Your task to perform on an android device: Show me productivity apps on the Play Store Image 0: 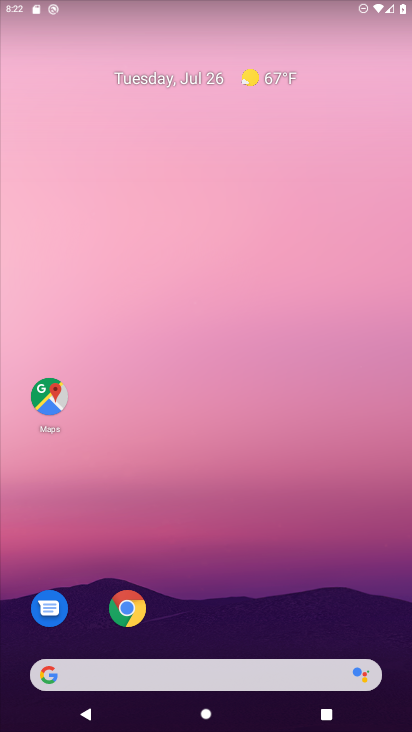
Step 0: drag from (234, 635) to (215, 2)
Your task to perform on an android device: Show me productivity apps on the Play Store Image 1: 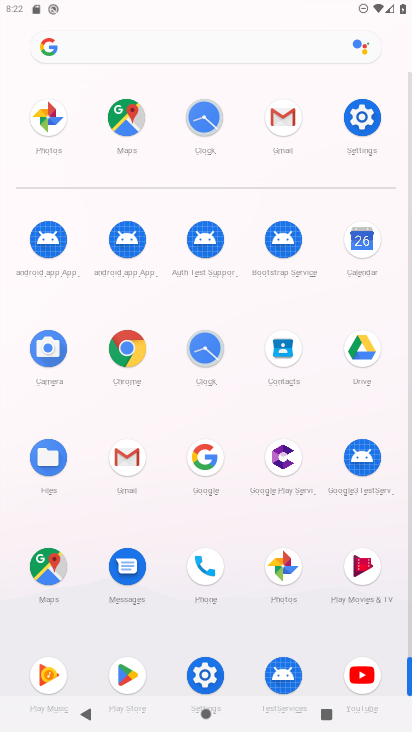
Step 1: click (111, 667)
Your task to perform on an android device: Show me productivity apps on the Play Store Image 2: 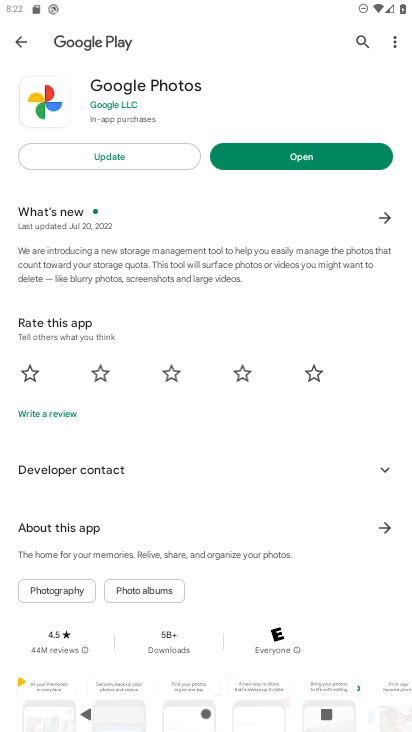
Step 2: click (23, 43)
Your task to perform on an android device: Show me productivity apps on the Play Store Image 3: 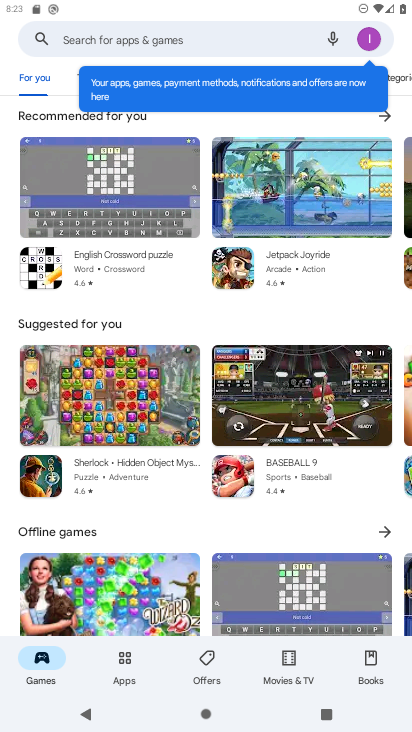
Step 3: click (117, 667)
Your task to perform on an android device: Show me productivity apps on the Play Store Image 4: 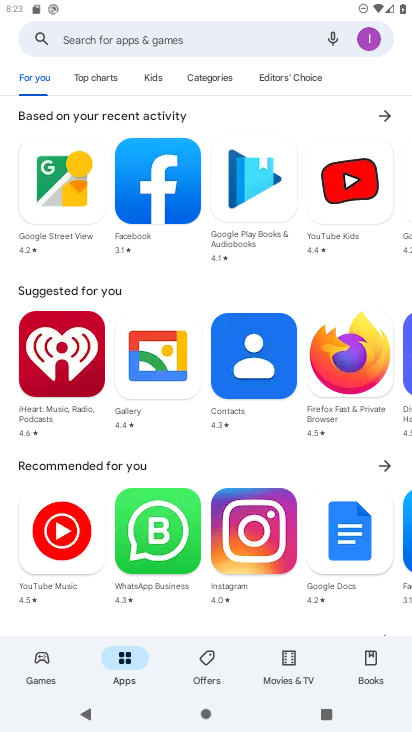
Step 4: click (223, 80)
Your task to perform on an android device: Show me productivity apps on the Play Store Image 5: 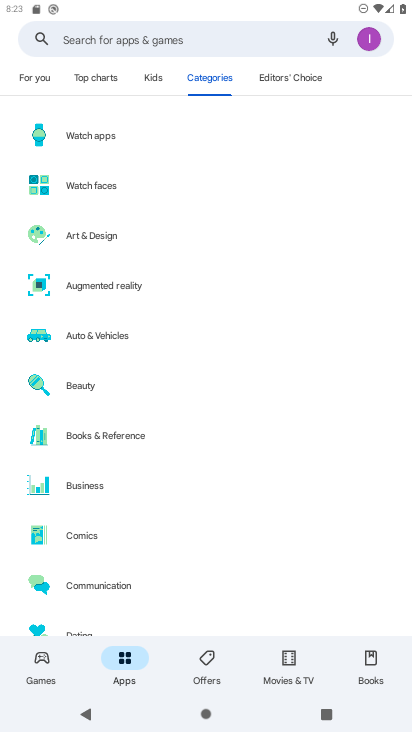
Step 5: drag from (132, 553) to (192, 119)
Your task to perform on an android device: Show me productivity apps on the Play Store Image 6: 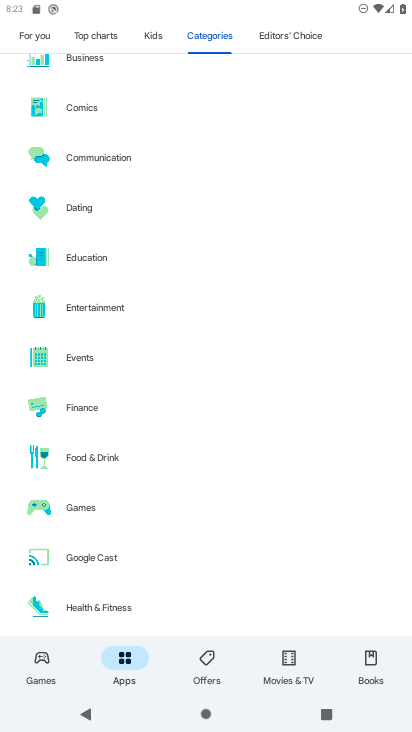
Step 6: drag from (167, 534) to (201, 50)
Your task to perform on an android device: Show me productivity apps on the Play Store Image 7: 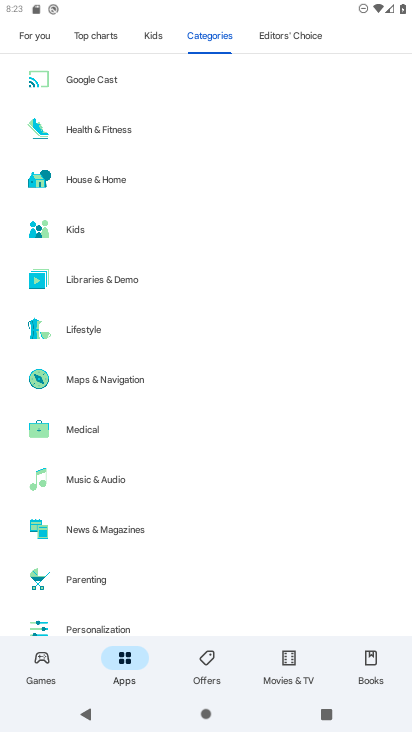
Step 7: drag from (120, 579) to (162, 216)
Your task to perform on an android device: Show me productivity apps on the Play Store Image 8: 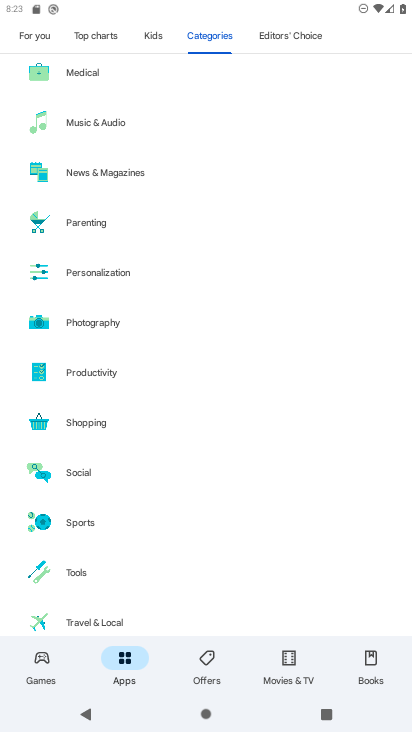
Step 8: click (124, 374)
Your task to perform on an android device: Show me productivity apps on the Play Store Image 9: 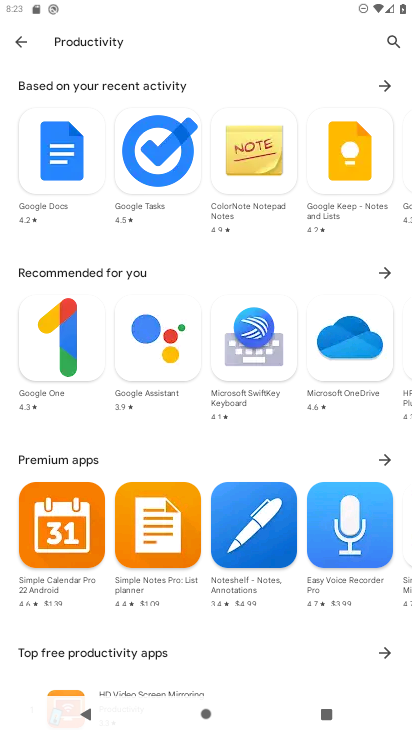
Step 9: task complete